Your task to perform on an android device: Go to battery settings Image 0: 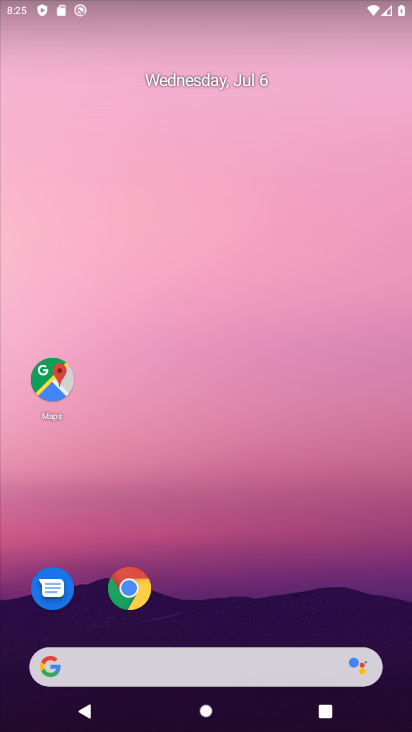
Step 0: drag from (213, 574) to (184, 181)
Your task to perform on an android device: Go to battery settings Image 1: 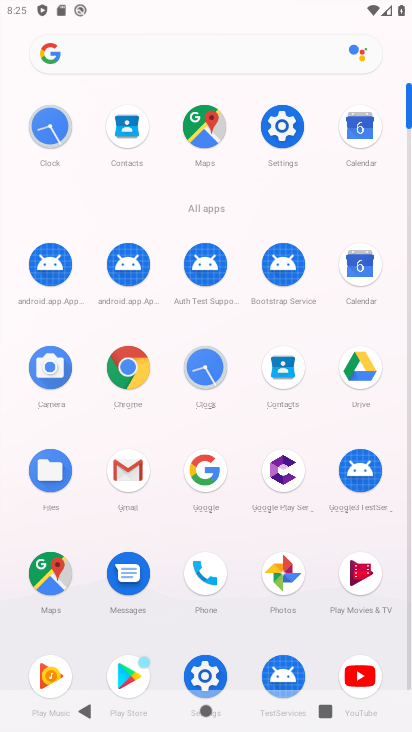
Step 1: click (283, 124)
Your task to perform on an android device: Go to battery settings Image 2: 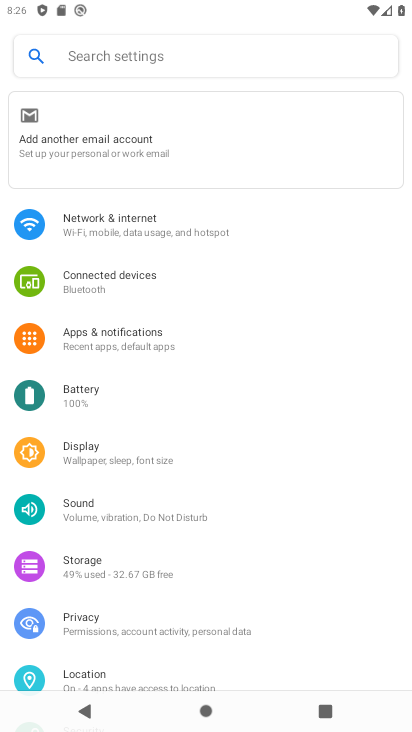
Step 2: click (72, 392)
Your task to perform on an android device: Go to battery settings Image 3: 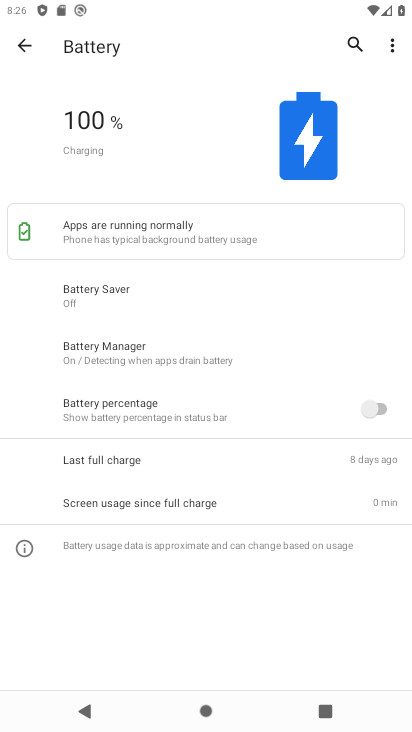
Step 3: click (72, 392)
Your task to perform on an android device: Go to battery settings Image 4: 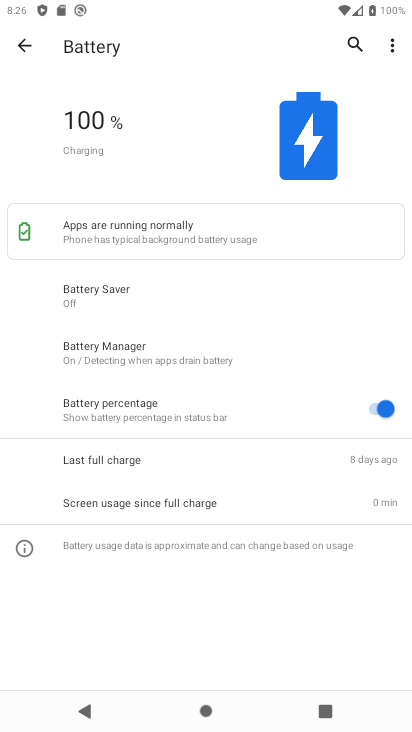
Step 4: task complete